Your task to perform on an android device: turn off data saver in the chrome app Image 0: 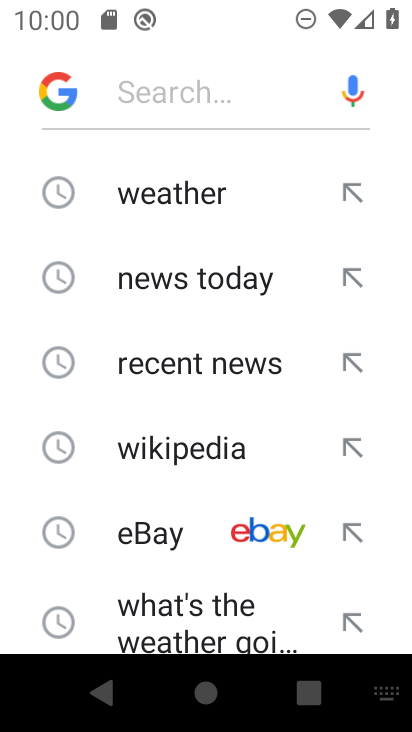
Step 0: press home button
Your task to perform on an android device: turn off data saver in the chrome app Image 1: 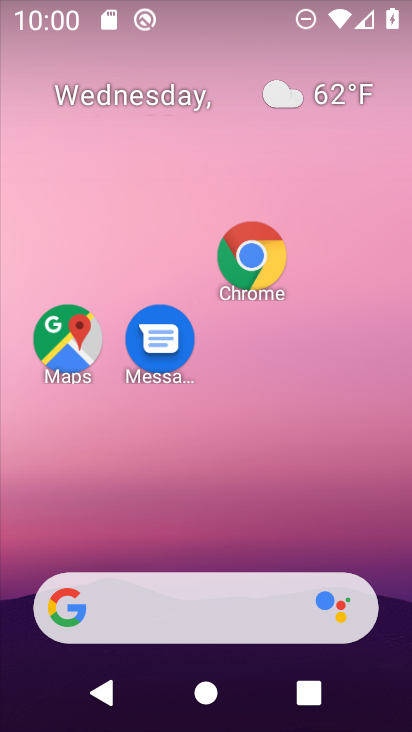
Step 1: click (252, 255)
Your task to perform on an android device: turn off data saver in the chrome app Image 2: 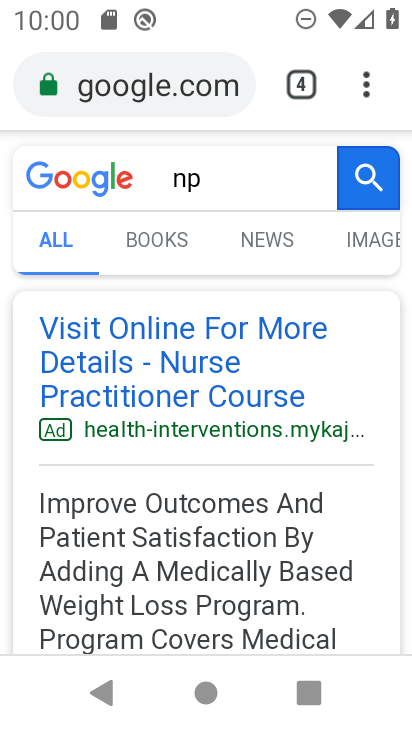
Step 2: click (360, 89)
Your task to perform on an android device: turn off data saver in the chrome app Image 3: 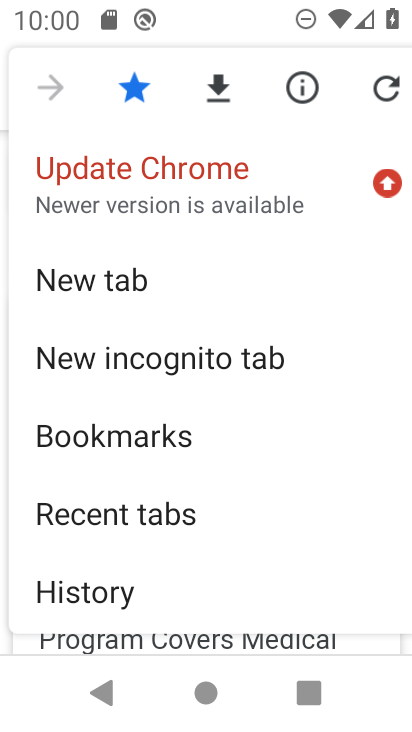
Step 3: drag from (212, 555) to (186, 132)
Your task to perform on an android device: turn off data saver in the chrome app Image 4: 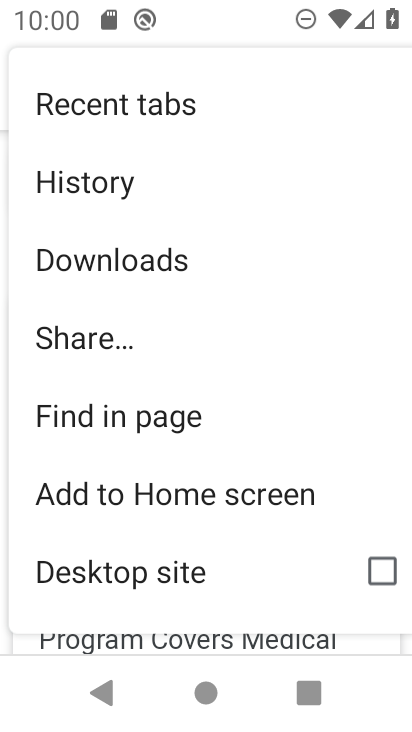
Step 4: drag from (183, 554) to (163, 138)
Your task to perform on an android device: turn off data saver in the chrome app Image 5: 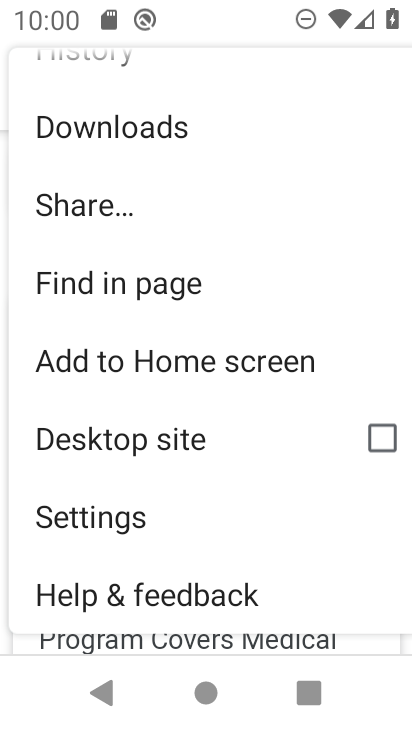
Step 5: click (131, 510)
Your task to perform on an android device: turn off data saver in the chrome app Image 6: 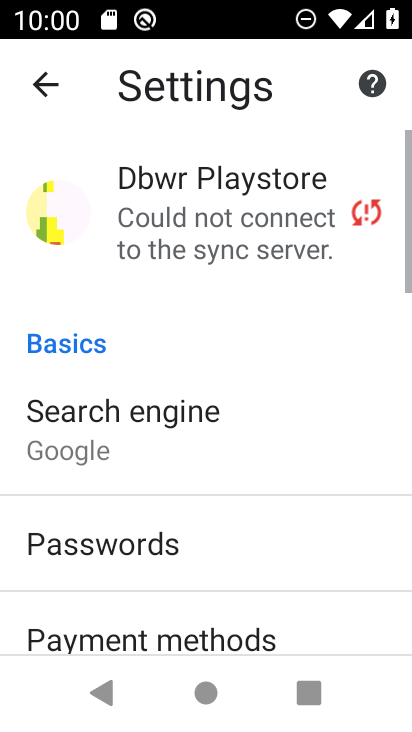
Step 6: drag from (243, 491) to (216, 35)
Your task to perform on an android device: turn off data saver in the chrome app Image 7: 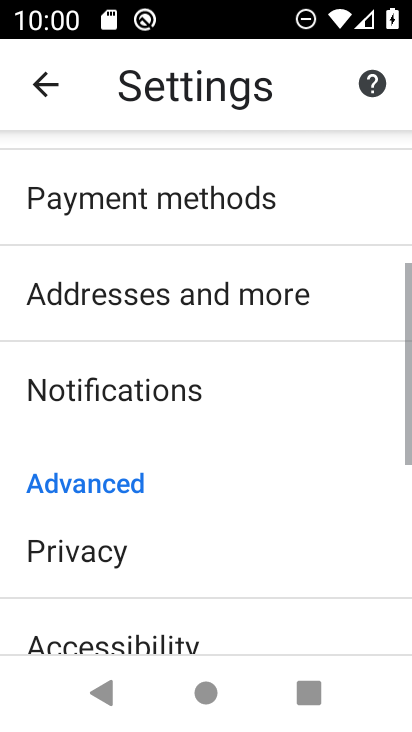
Step 7: drag from (248, 575) to (205, 113)
Your task to perform on an android device: turn off data saver in the chrome app Image 8: 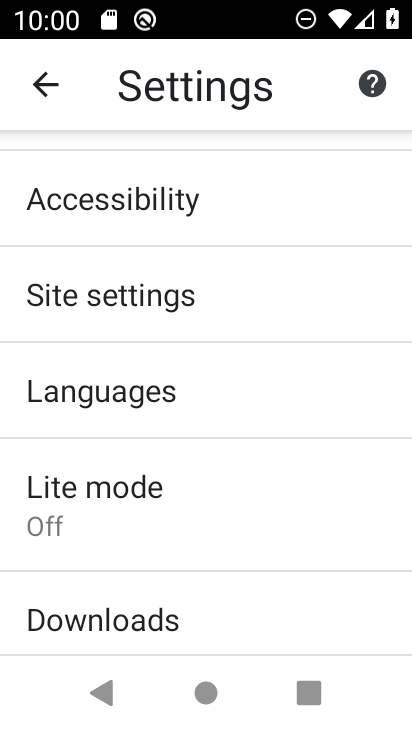
Step 8: click (83, 494)
Your task to perform on an android device: turn off data saver in the chrome app Image 9: 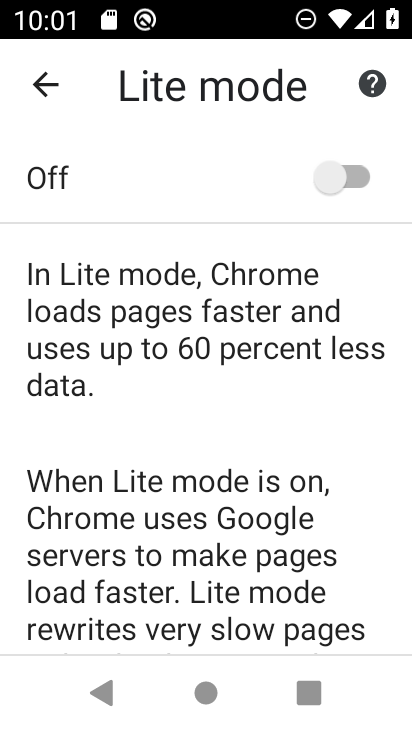
Step 9: task complete